Your task to perform on an android device: Go to Yahoo.com Image 0: 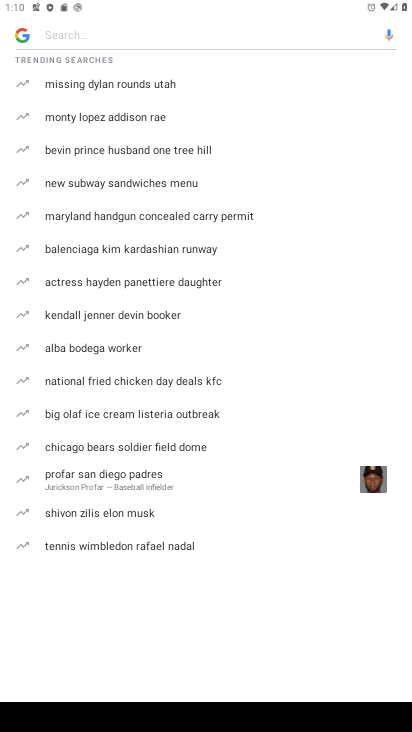
Step 0: press home button
Your task to perform on an android device: Go to Yahoo.com Image 1: 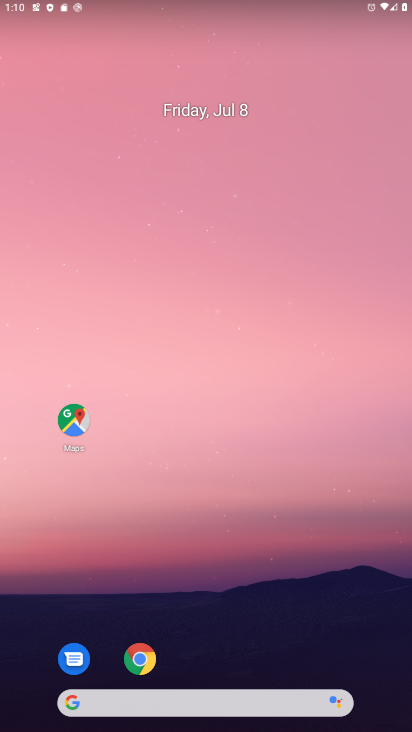
Step 1: drag from (223, 572) to (174, 158)
Your task to perform on an android device: Go to Yahoo.com Image 2: 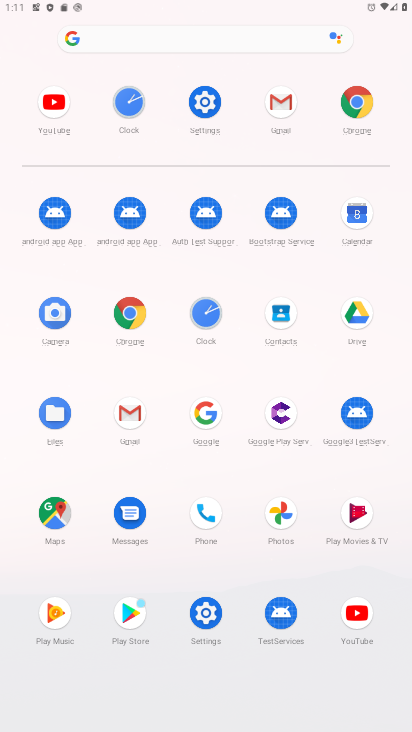
Step 2: click (366, 96)
Your task to perform on an android device: Go to Yahoo.com Image 3: 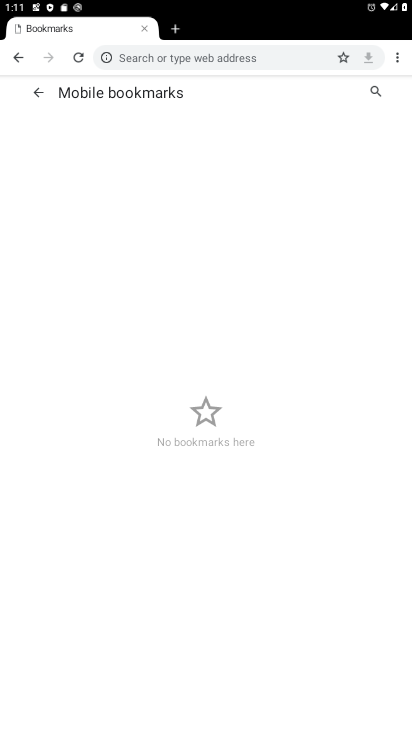
Step 3: click (394, 54)
Your task to perform on an android device: Go to Yahoo.com Image 4: 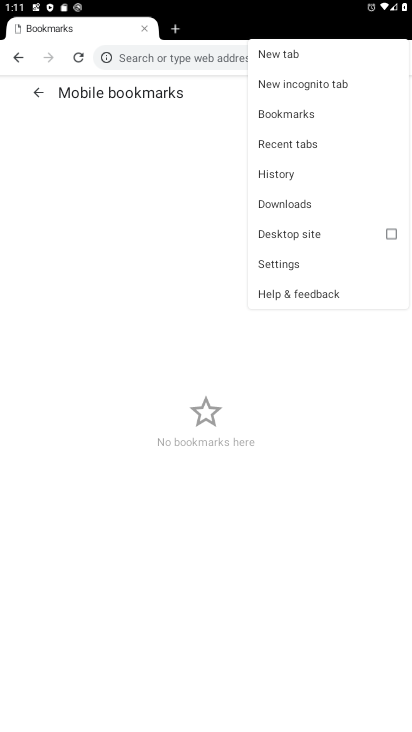
Step 4: click (301, 52)
Your task to perform on an android device: Go to Yahoo.com Image 5: 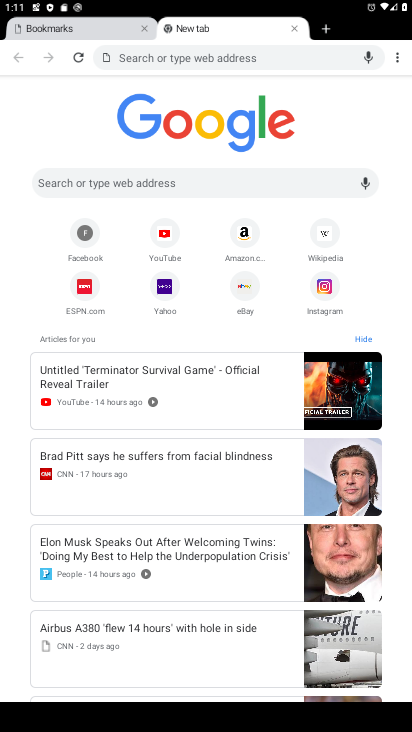
Step 5: click (163, 282)
Your task to perform on an android device: Go to Yahoo.com Image 6: 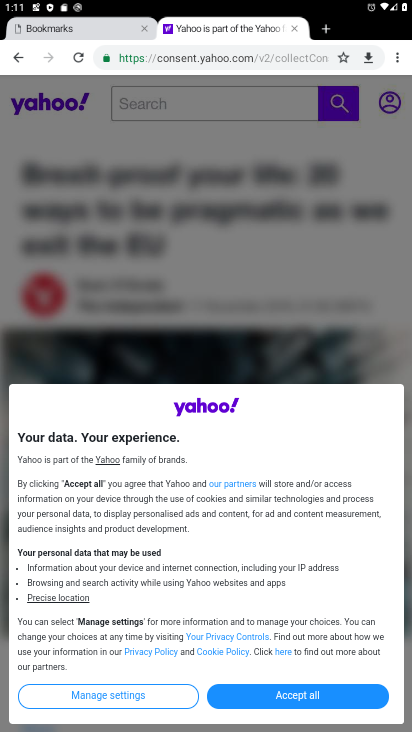
Step 6: click (227, 696)
Your task to perform on an android device: Go to Yahoo.com Image 7: 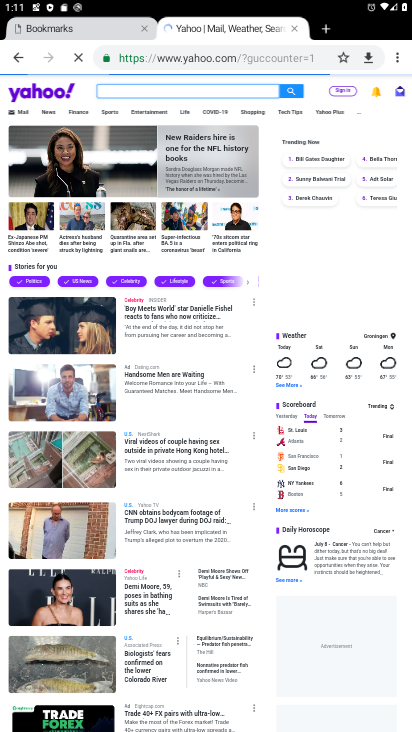
Step 7: task complete